Your task to perform on an android device: open app "Spotify" (install if not already installed) and go to login screen Image 0: 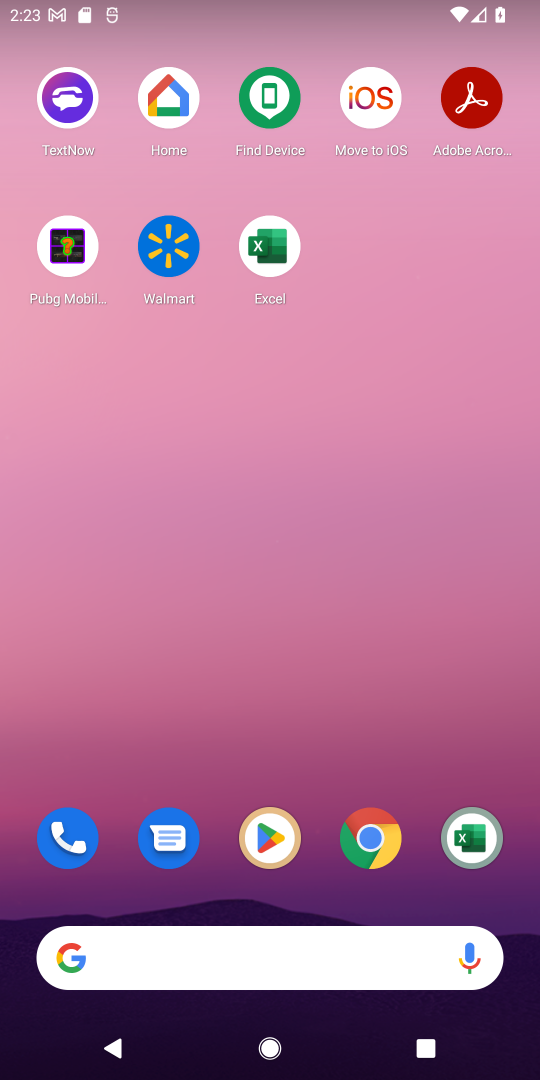
Step 0: click (262, 830)
Your task to perform on an android device: open app "Spotify" (install if not already installed) and go to login screen Image 1: 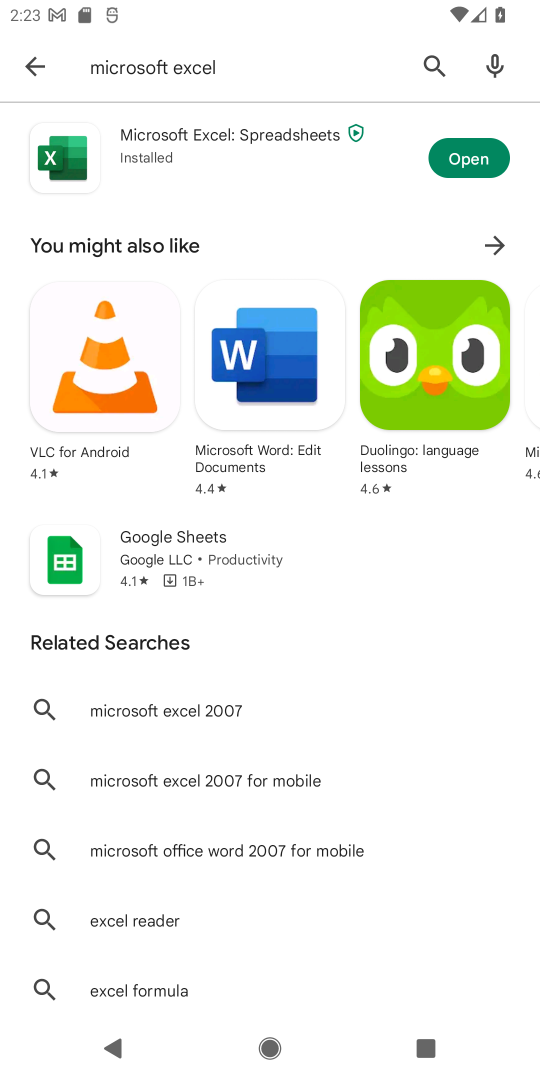
Step 1: click (31, 77)
Your task to perform on an android device: open app "Spotify" (install if not already installed) and go to login screen Image 2: 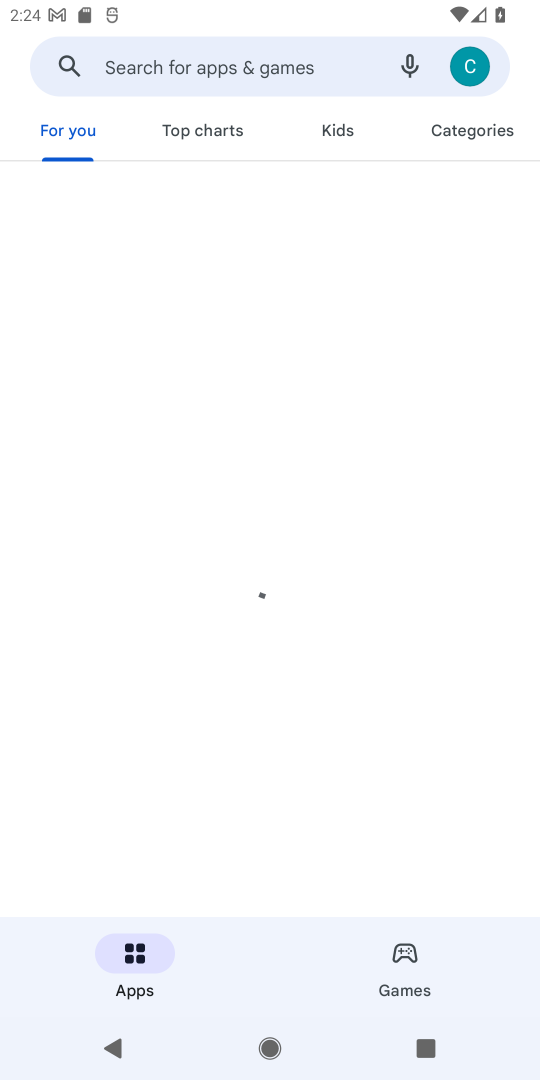
Step 2: click (225, 63)
Your task to perform on an android device: open app "Spotify" (install if not already installed) and go to login screen Image 3: 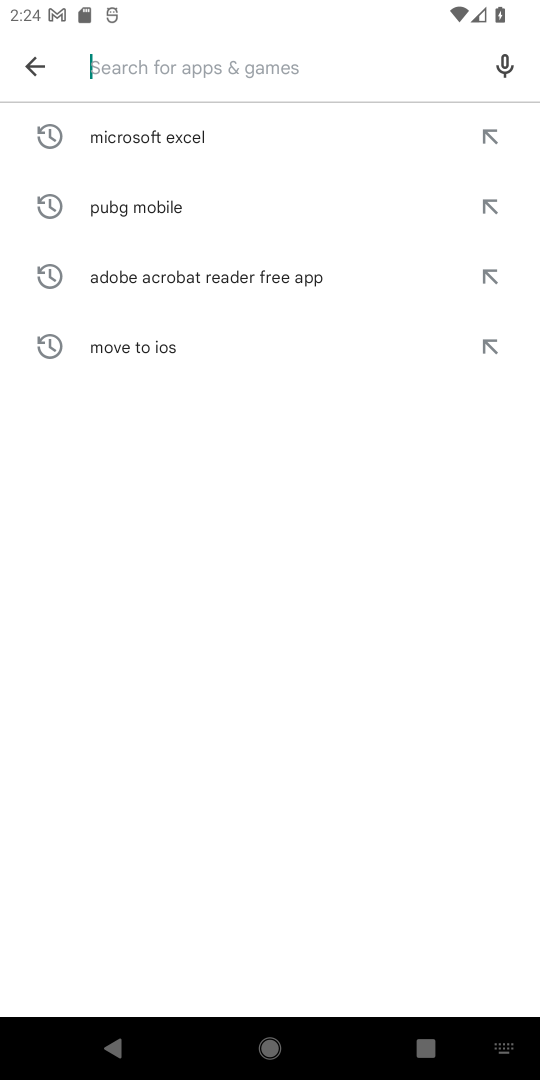
Step 3: type "Spotify"
Your task to perform on an android device: open app "Spotify" (install if not already installed) and go to login screen Image 4: 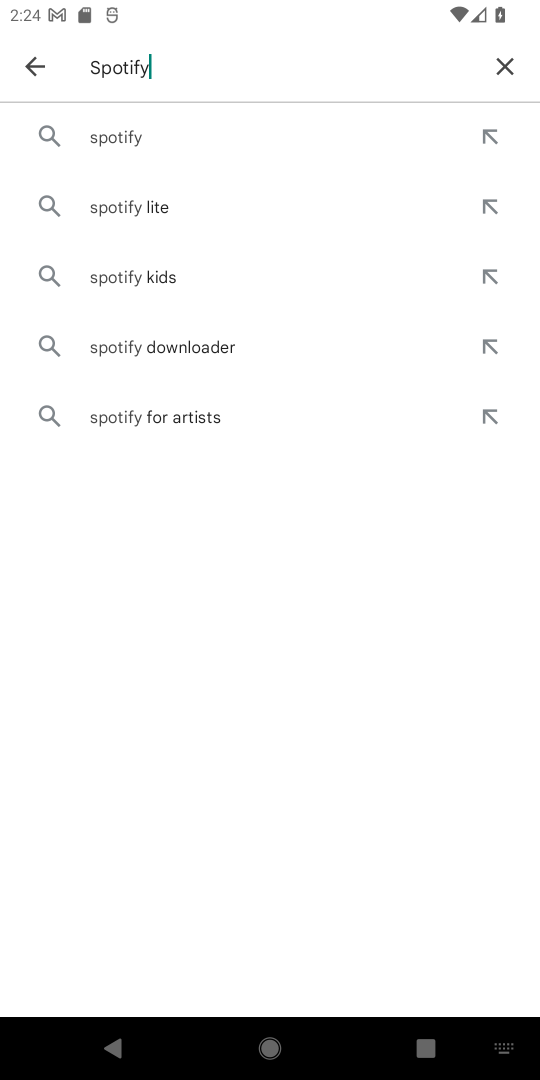
Step 4: click (120, 145)
Your task to perform on an android device: open app "Spotify" (install if not already installed) and go to login screen Image 5: 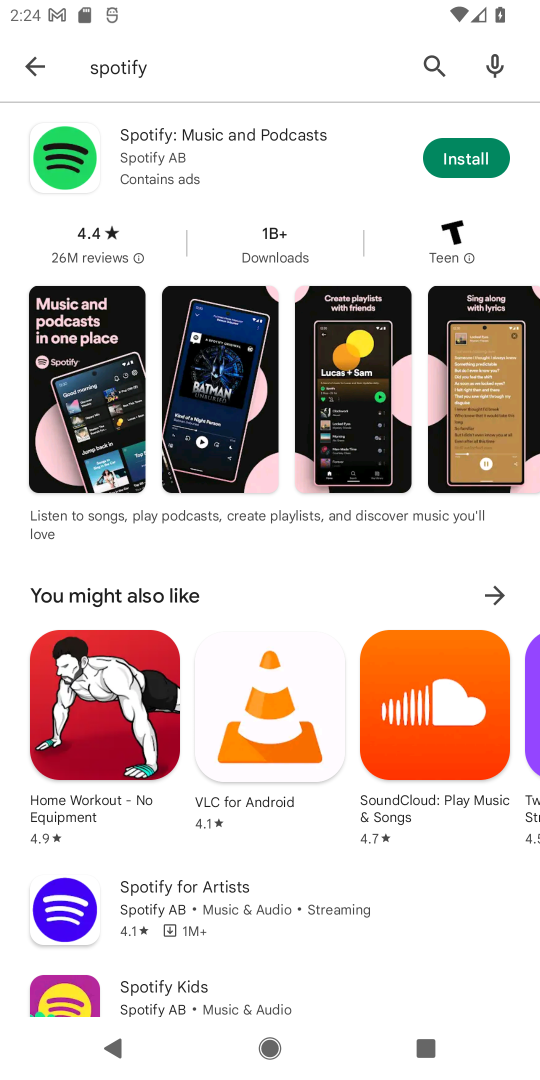
Step 5: click (451, 157)
Your task to perform on an android device: open app "Spotify" (install if not already installed) and go to login screen Image 6: 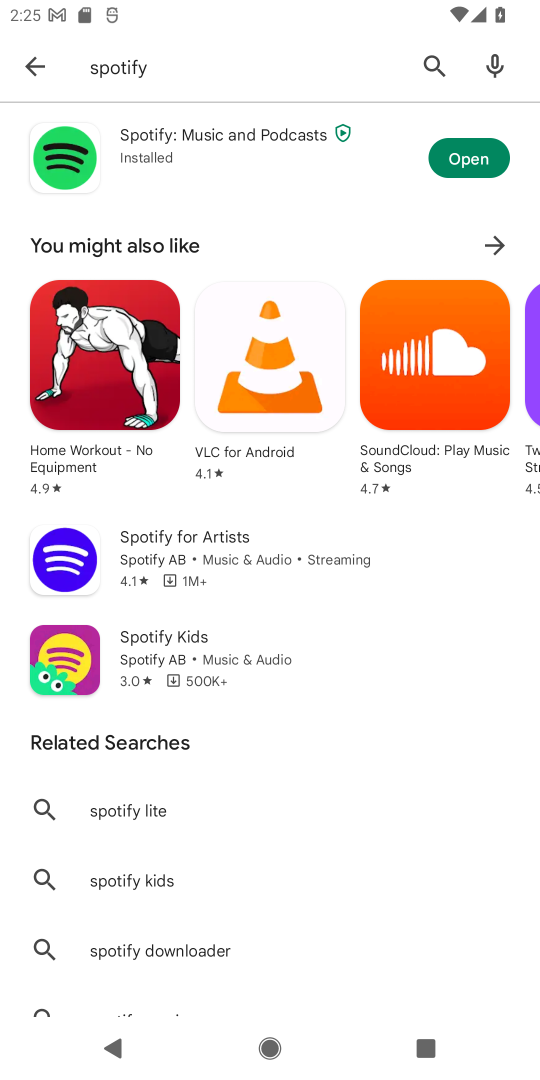
Step 6: click (454, 162)
Your task to perform on an android device: open app "Spotify" (install if not already installed) and go to login screen Image 7: 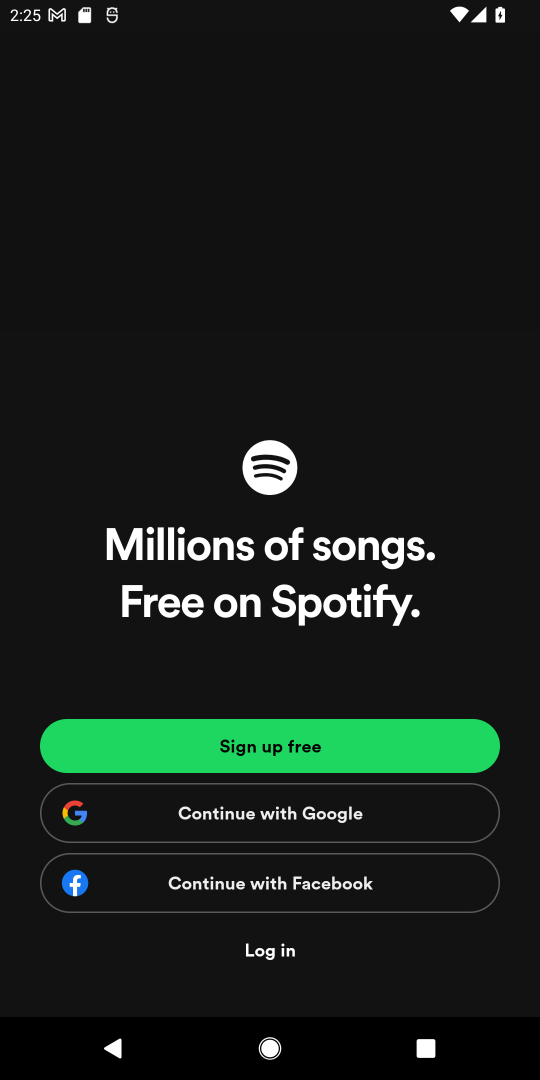
Step 7: task complete